Your task to perform on an android device: add a contact Image 0: 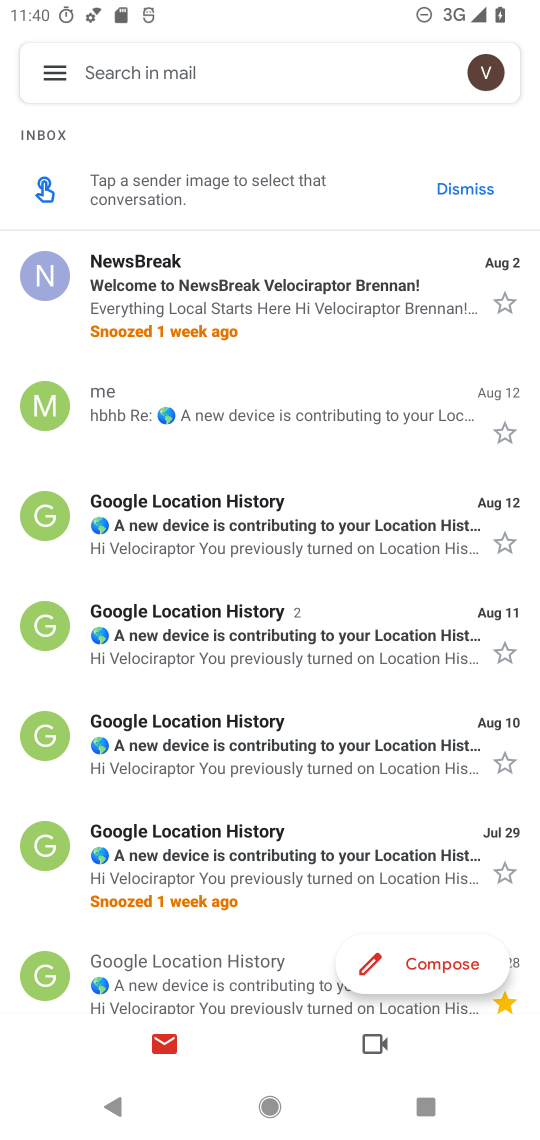
Step 0: press home button
Your task to perform on an android device: add a contact Image 1: 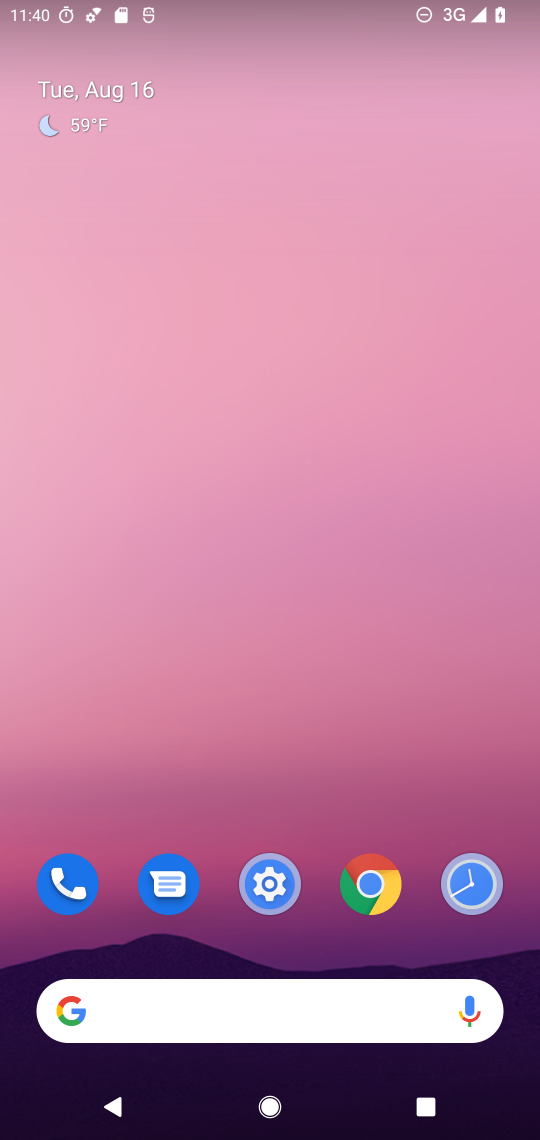
Step 1: drag from (254, 647) to (255, 270)
Your task to perform on an android device: add a contact Image 2: 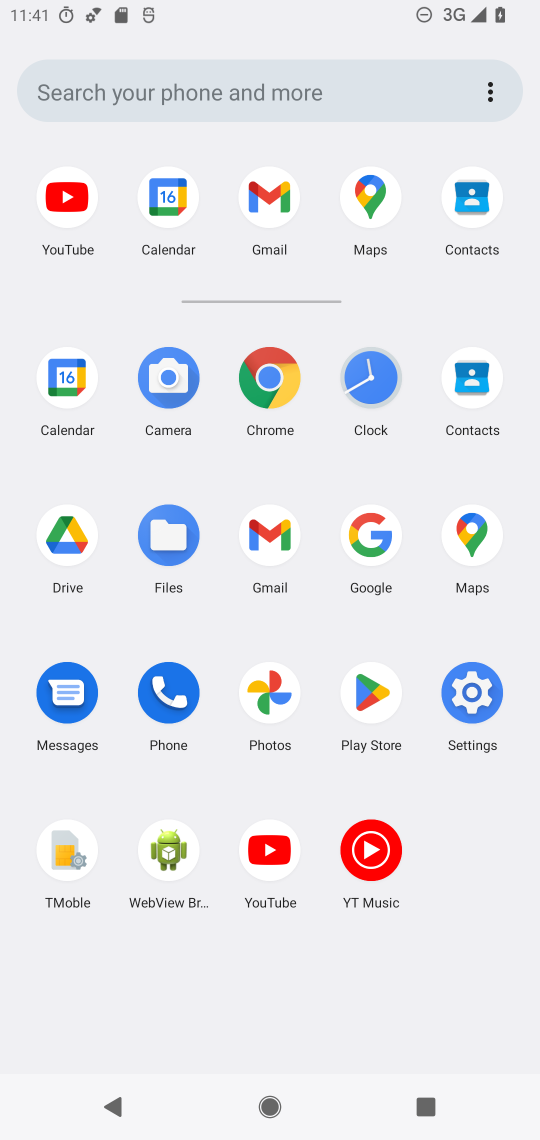
Step 2: click (480, 374)
Your task to perform on an android device: add a contact Image 3: 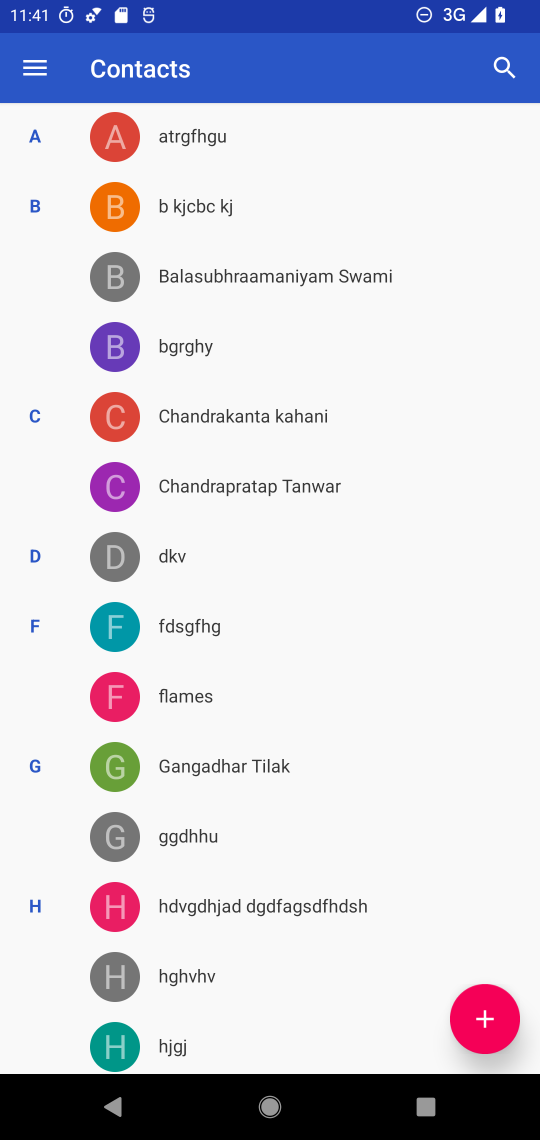
Step 3: click (480, 1029)
Your task to perform on an android device: add a contact Image 4: 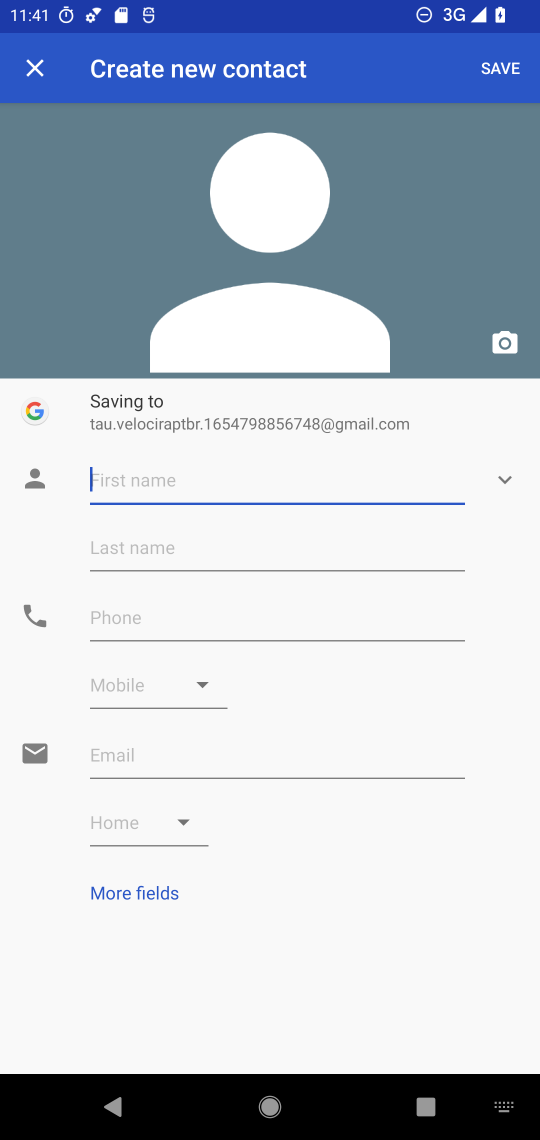
Step 4: type "nimishay"
Your task to perform on an android device: add a contact Image 5: 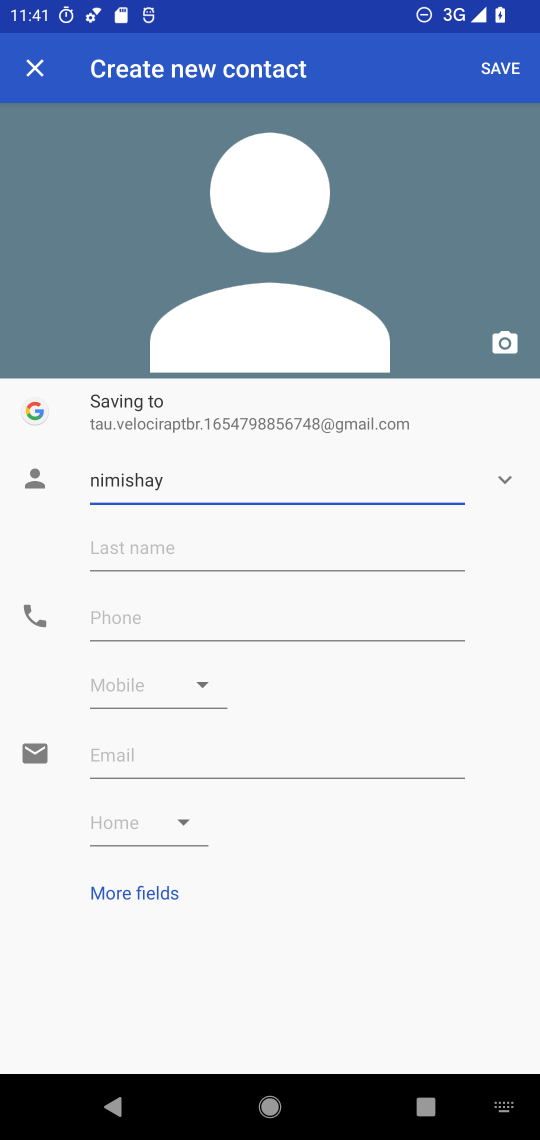
Step 5: click (303, 551)
Your task to perform on an android device: add a contact Image 6: 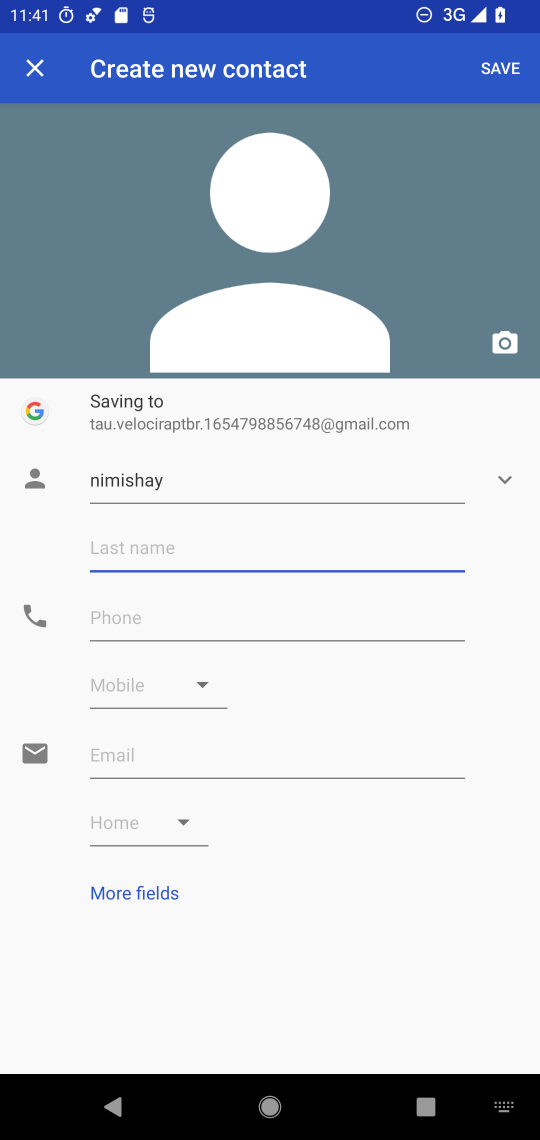
Step 6: type "vinay"
Your task to perform on an android device: add a contact Image 7: 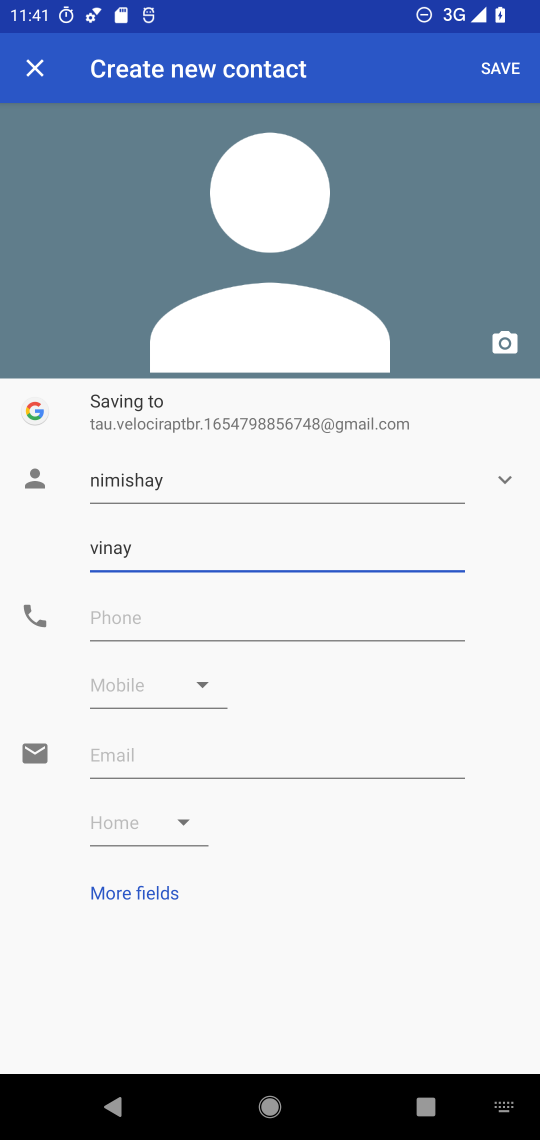
Step 7: click (199, 618)
Your task to perform on an android device: add a contact Image 8: 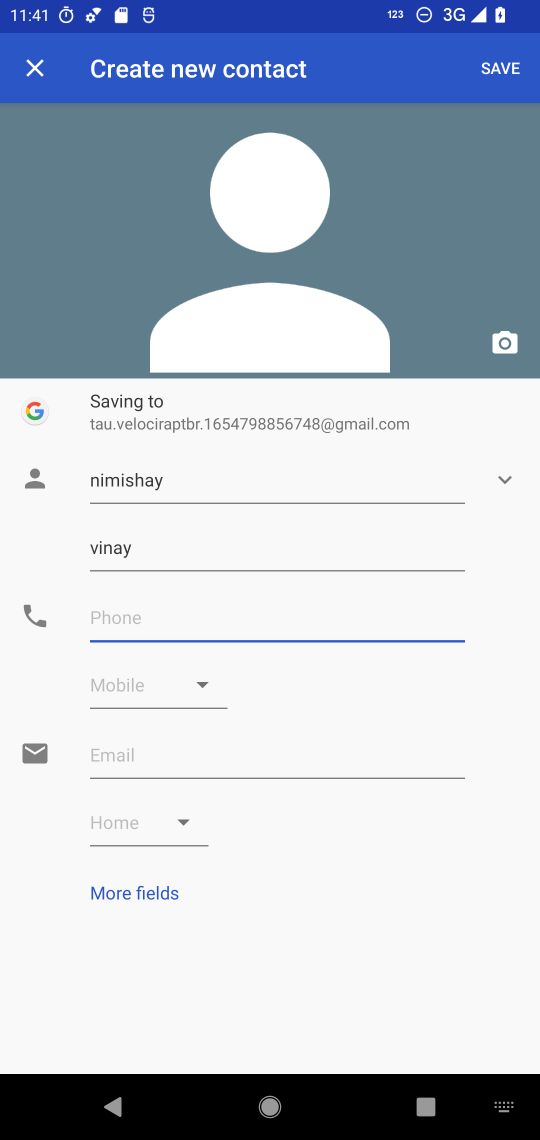
Step 8: type "6789009876"
Your task to perform on an android device: add a contact Image 9: 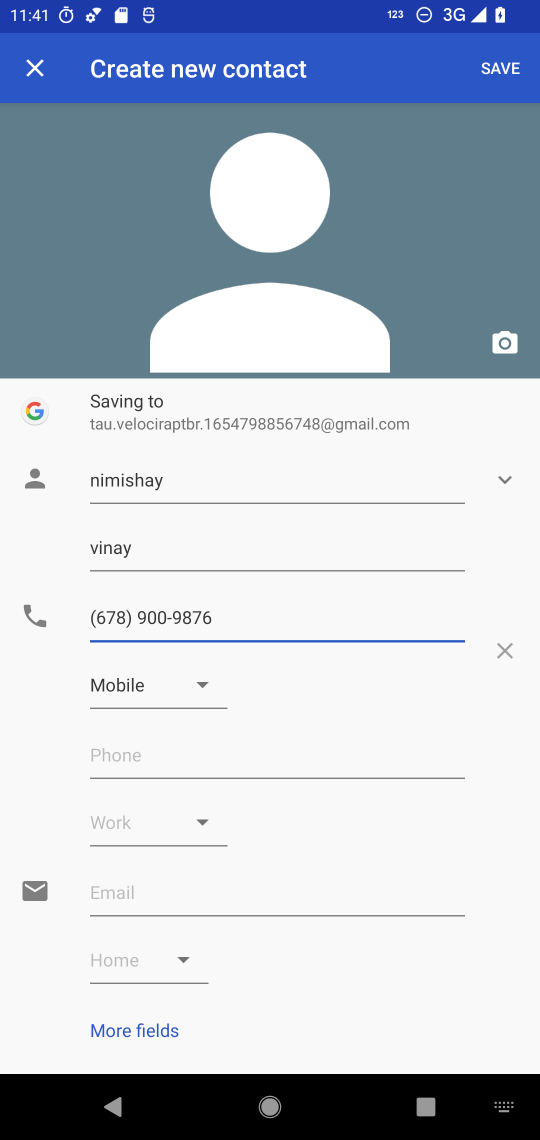
Step 9: click (523, 66)
Your task to perform on an android device: add a contact Image 10: 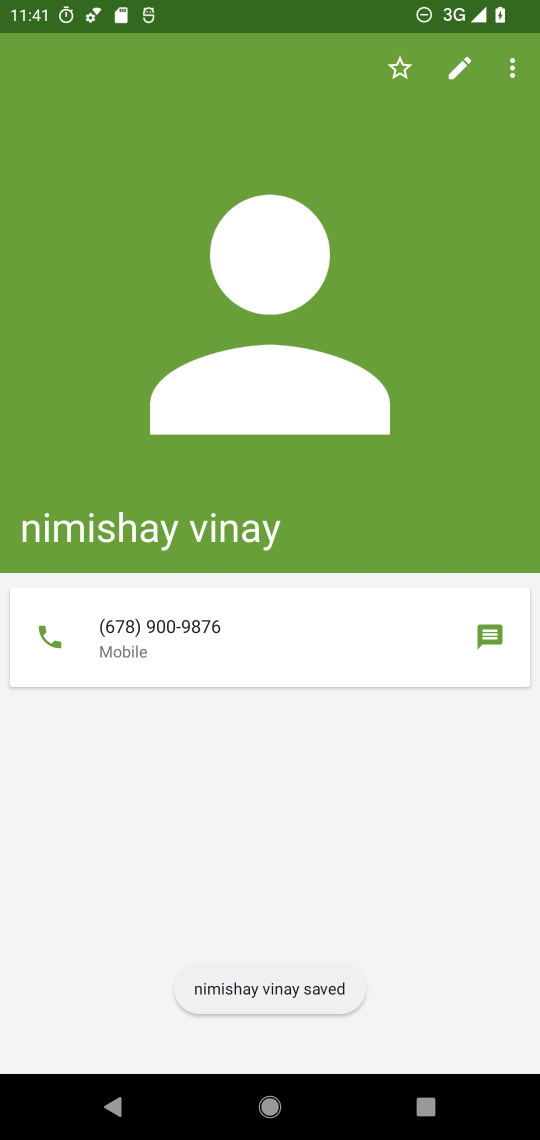
Step 10: task complete